Your task to perform on an android device: Go to sound settings Image 0: 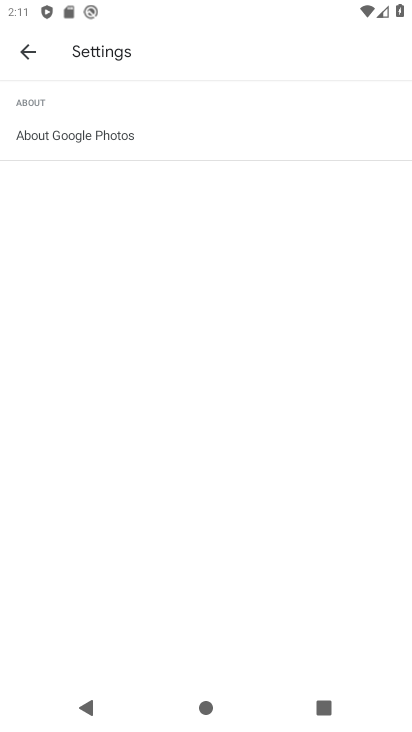
Step 0: press home button
Your task to perform on an android device: Go to sound settings Image 1: 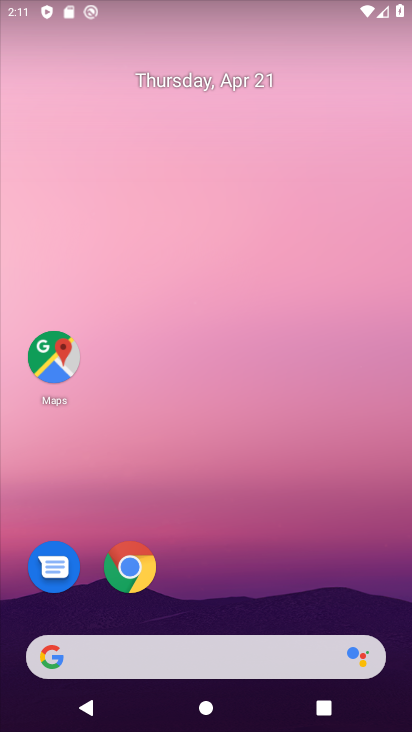
Step 1: drag from (268, 607) to (270, 179)
Your task to perform on an android device: Go to sound settings Image 2: 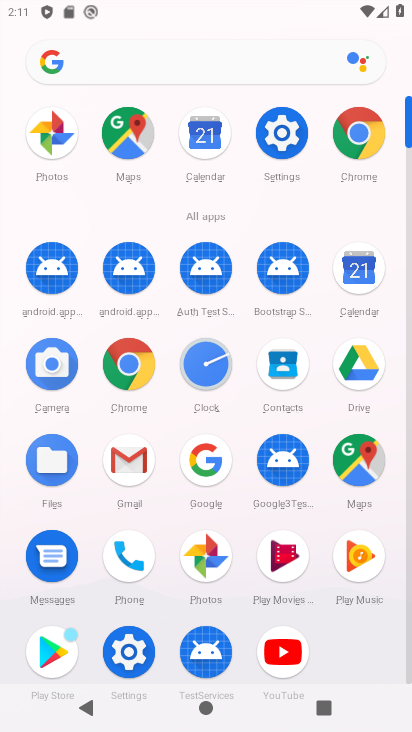
Step 2: click (274, 137)
Your task to perform on an android device: Go to sound settings Image 3: 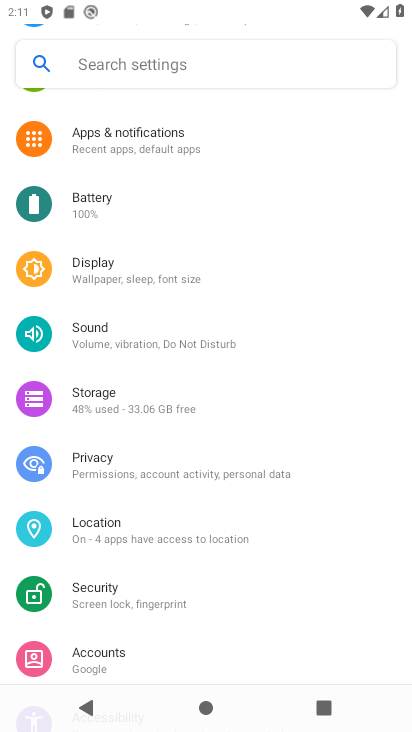
Step 3: click (66, 328)
Your task to perform on an android device: Go to sound settings Image 4: 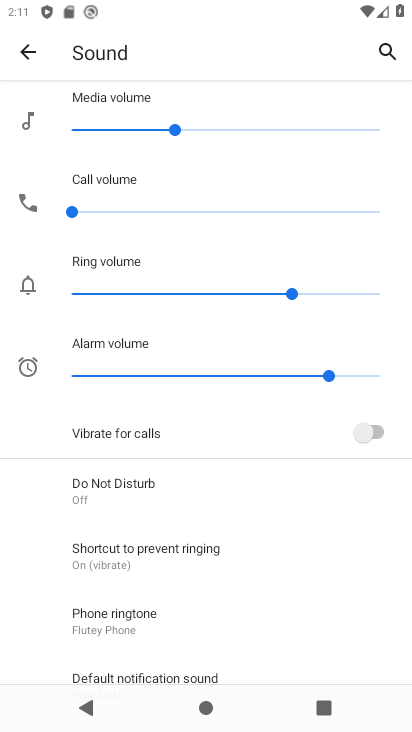
Step 4: task complete